Your task to perform on an android device: read, delete, or share a saved page in the chrome app Image 0: 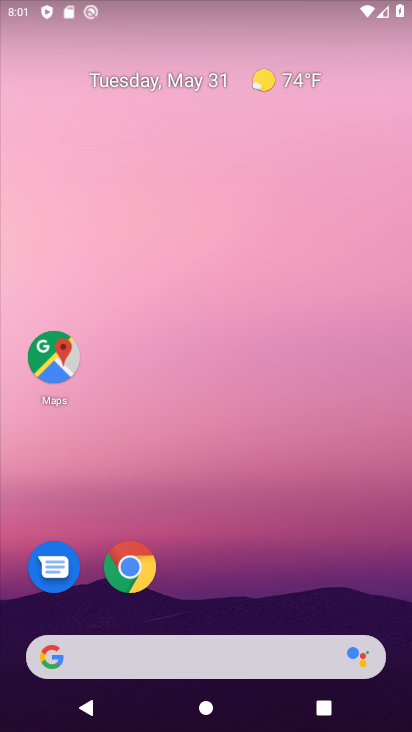
Step 0: drag from (313, 702) to (257, 111)
Your task to perform on an android device: read, delete, or share a saved page in the chrome app Image 1: 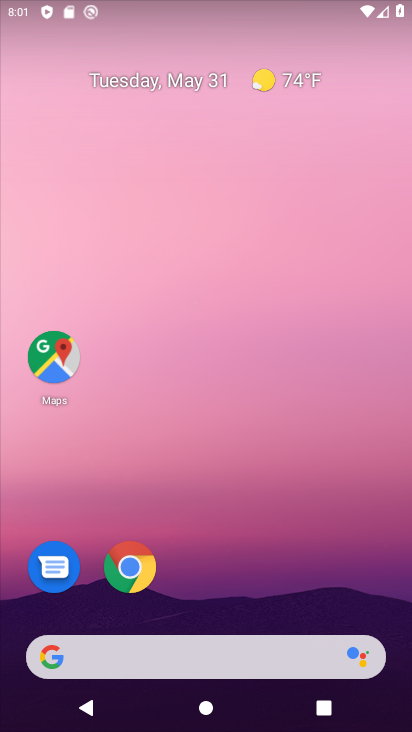
Step 1: drag from (263, 607) to (193, 281)
Your task to perform on an android device: read, delete, or share a saved page in the chrome app Image 2: 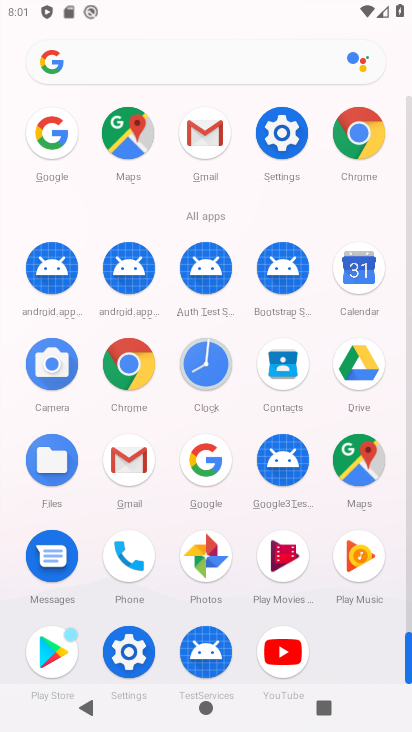
Step 2: click (373, 137)
Your task to perform on an android device: read, delete, or share a saved page in the chrome app Image 3: 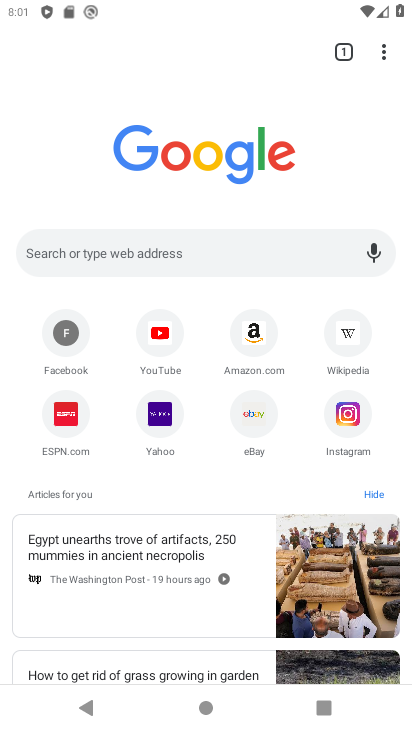
Step 3: drag from (386, 55) to (189, 353)
Your task to perform on an android device: read, delete, or share a saved page in the chrome app Image 4: 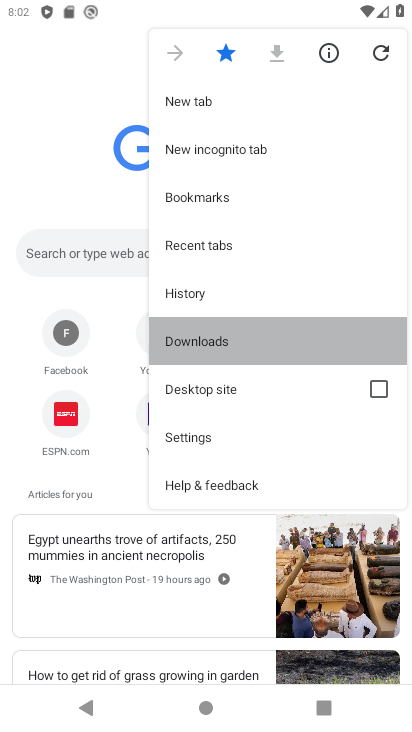
Step 4: click (192, 353)
Your task to perform on an android device: read, delete, or share a saved page in the chrome app Image 5: 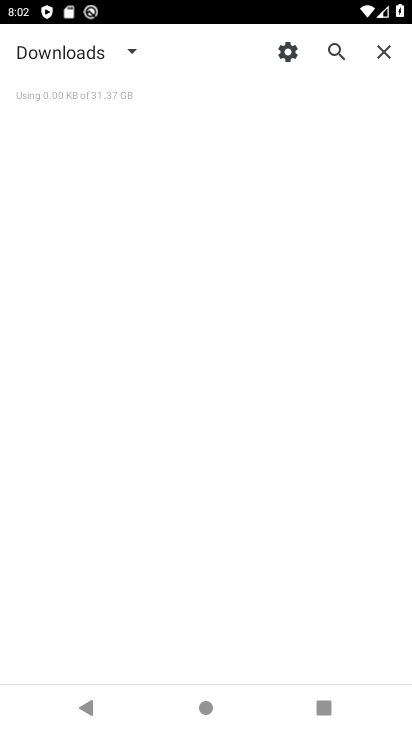
Step 5: task complete